Your task to perform on an android device: change your default location settings in chrome Image 0: 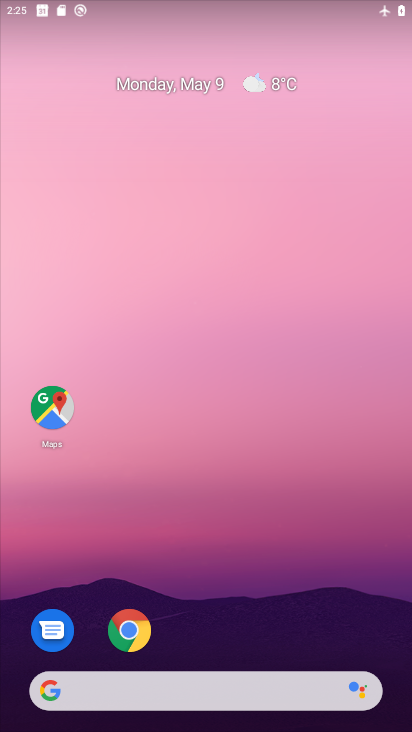
Step 0: click (140, 621)
Your task to perform on an android device: change your default location settings in chrome Image 1: 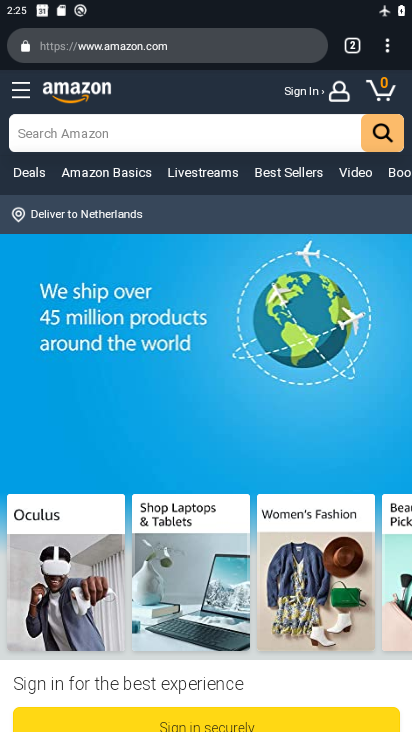
Step 1: click (386, 48)
Your task to perform on an android device: change your default location settings in chrome Image 2: 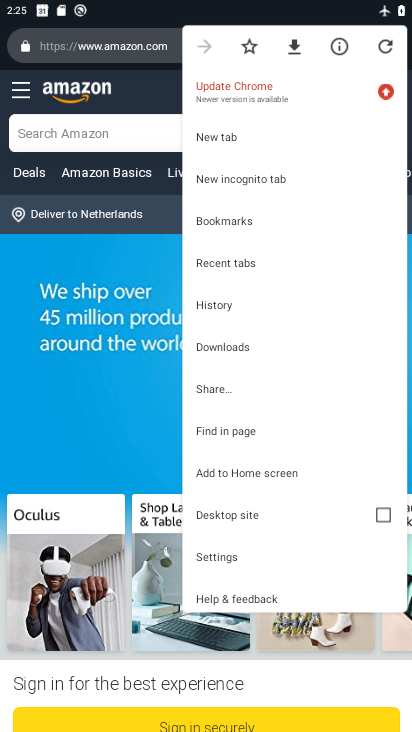
Step 2: click (234, 557)
Your task to perform on an android device: change your default location settings in chrome Image 3: 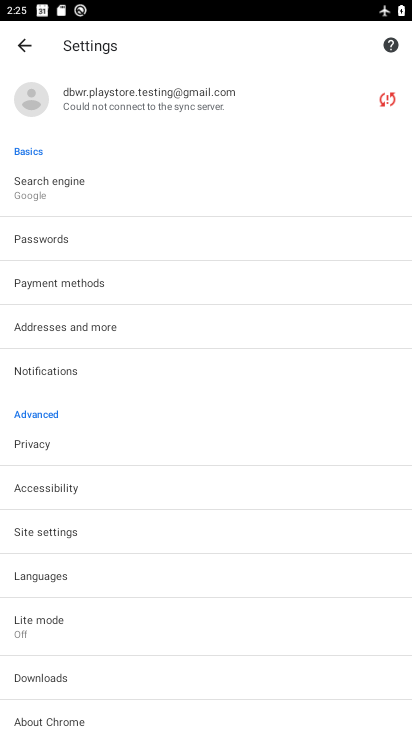
Step 3: drag from (72, 617) to (114, 468)
Your task to perform on an android device: change your default location settings in chrome Image 4: 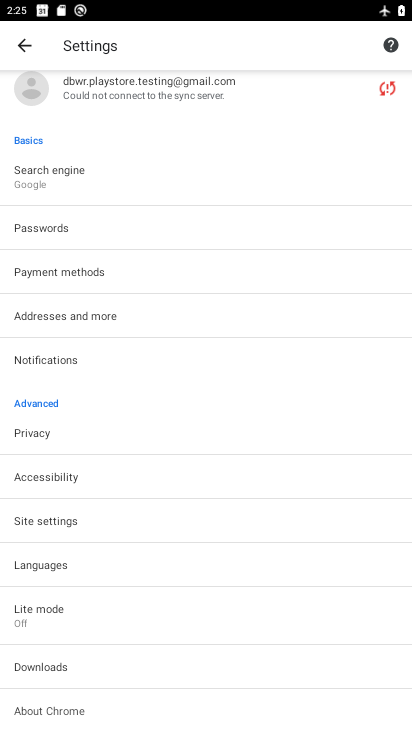
Step 4: click (74, 522)
Your task to perform on an android device: change your default location settings in chrome Image 5: 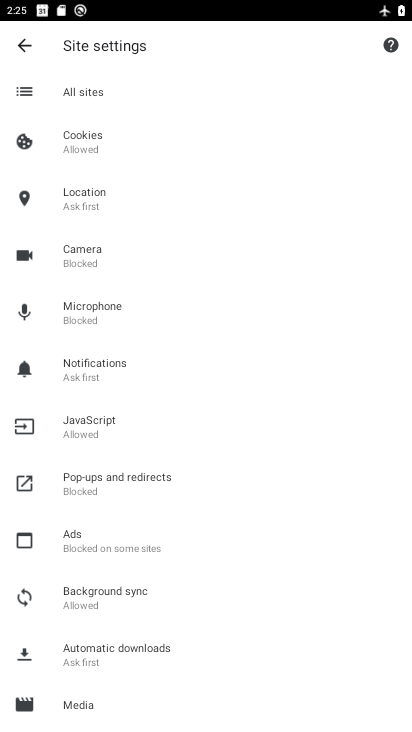
Step 5: click (109, 200)
Your task to perform on an android device: change your default location settings in chrome Image 6: 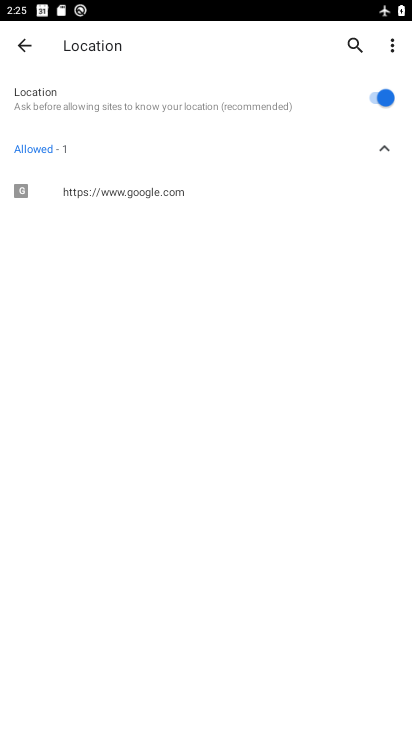
Step 6: click (376, 94)
Your task to perform on an android device: change your default location settings in chrome Image 7: 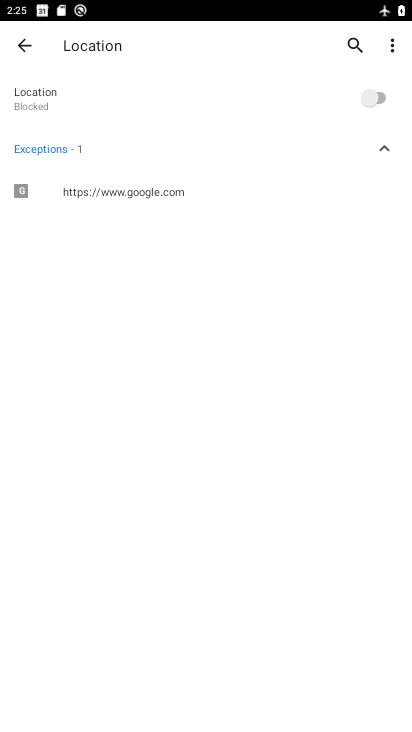
Step 7: task complete